Your task to perform on an android device: empty trash in google photos Image 0: 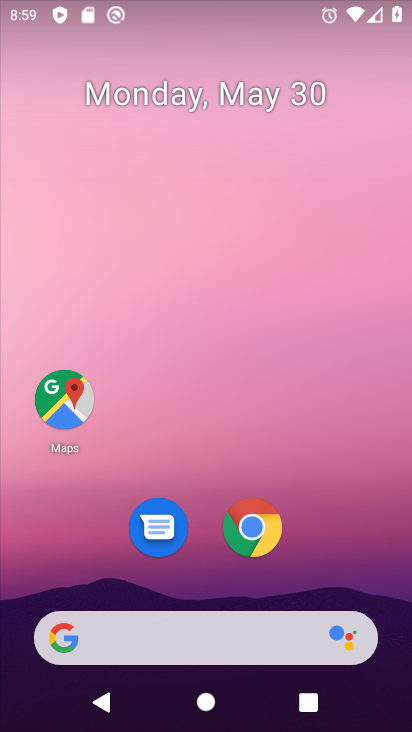
Step 0: drag from (302, 628) to (376, 6)
Your task to perform on an android device: empty trash in google photos Image 1: 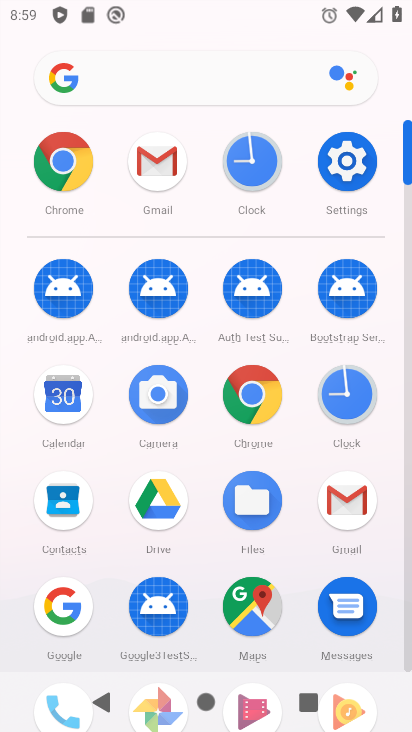
Step 1: drag from (197, 577) to (204, 95)
Your task to perform on an android device: empty trash in google photos Image 2: 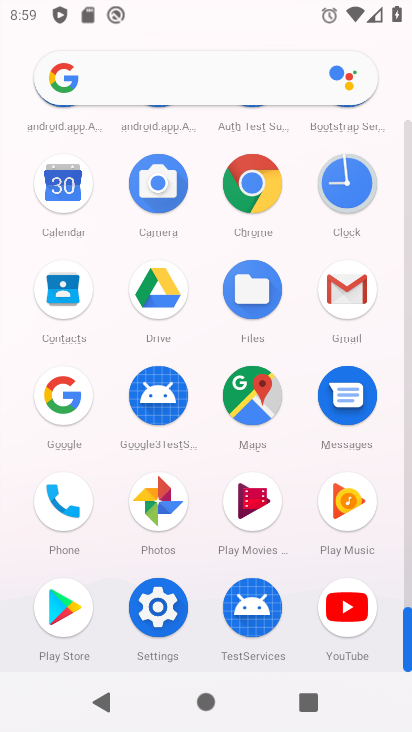
Step 2: click (150, 509)
Your task to perform on an android device: empty trash in google photos Image 3: 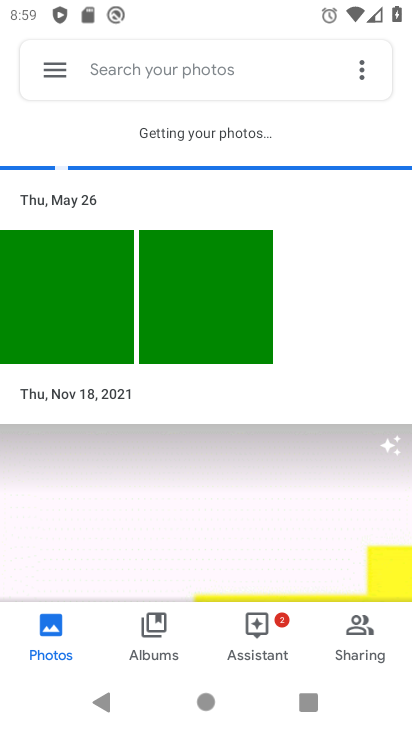
Step 3: click (69, 61)
Your task to perform on an android device: empty trash in google photos Image 4: 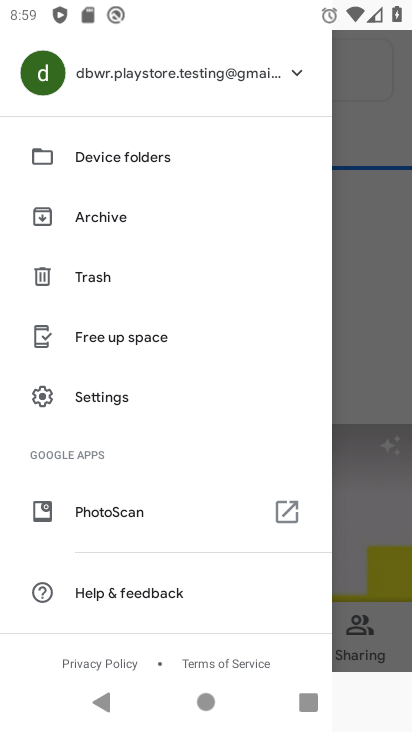
Step 4: click (113, 288)
Your task to perform on an android device: empty trash in google photos Image 5: 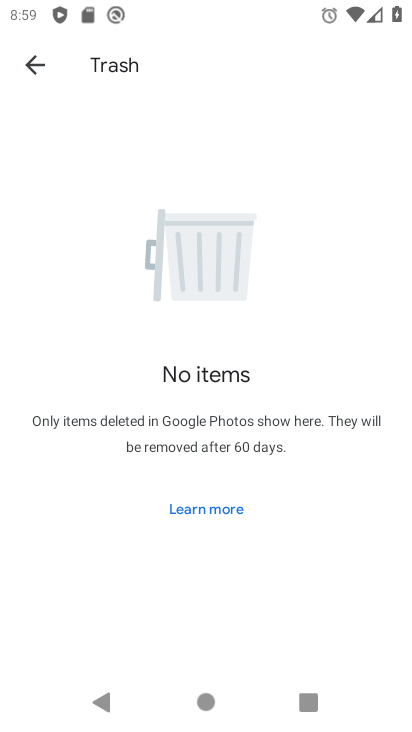
Step 5: task complete